Your task to perform on an android device: Open internet settings Image 0: 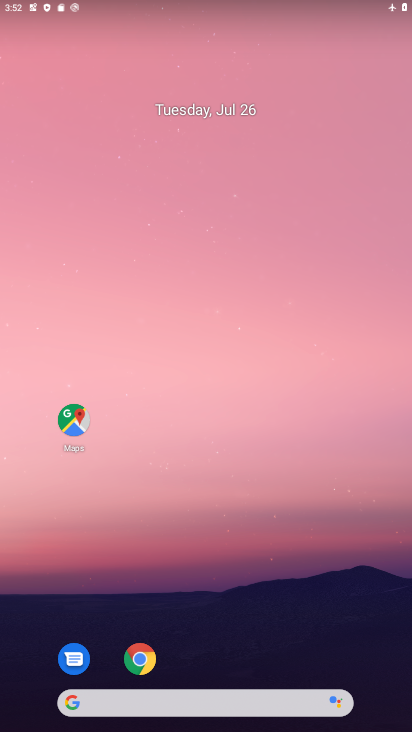
Step 0: drag from (224, 655) to (284, 174)
Your task to perform on an android device: Open internet settings Image 1: 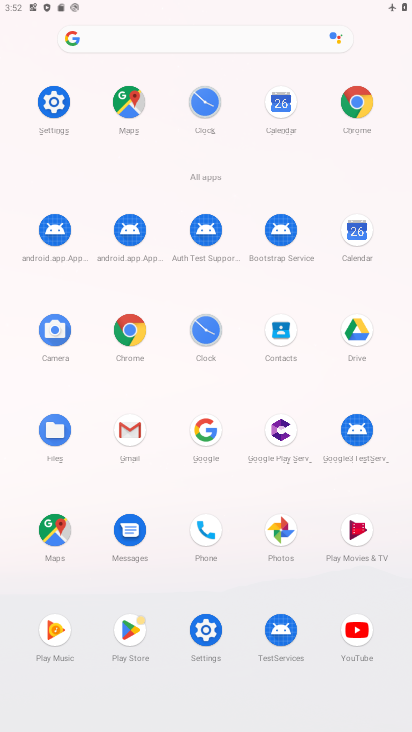
Step 1: click (45, 110)
Your task to perform on an android device: Open internet settings Image 2: 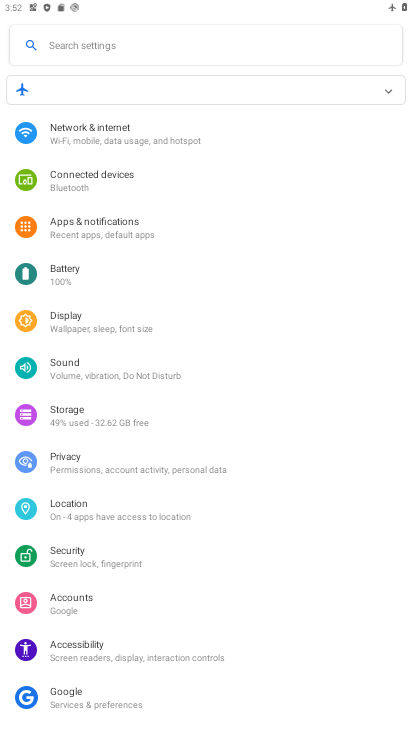
Step 2: click (107, 138)
Your task to perform on an android device: Open internet settings Image 3: 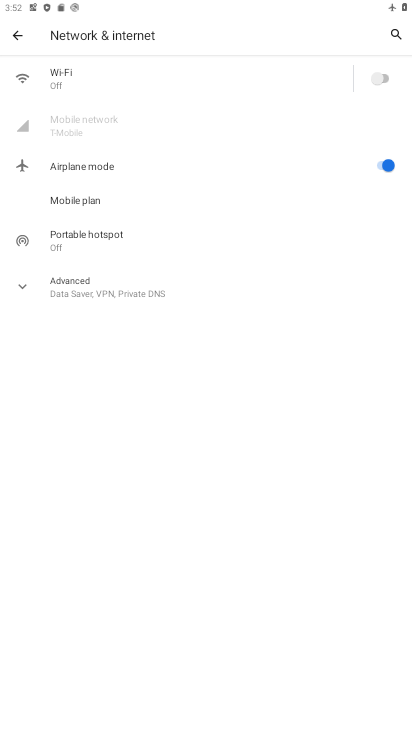
Step 3: task complete